Your task to perform on an android device: check data usage Image 0: 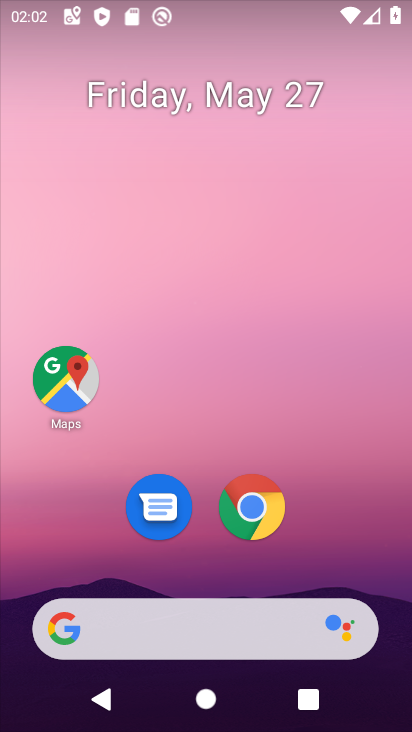
Step 0: drag from (230, 604) to (357, 203)
Your task to perform on an android device: check data usage Image 1: 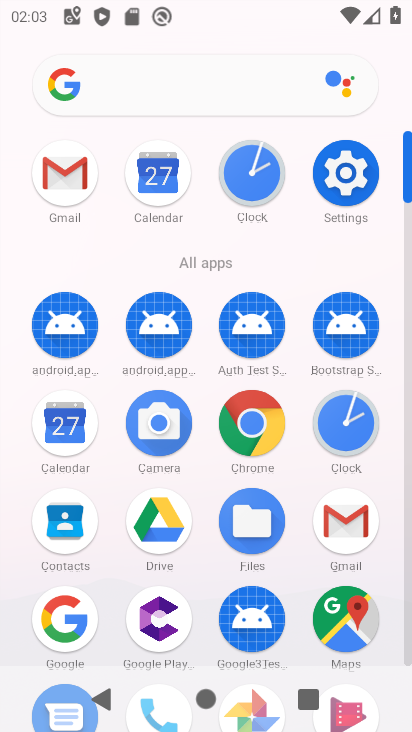
Step 1: click (344, 183)
Your task to perform on an android device: check data usage Image 2: 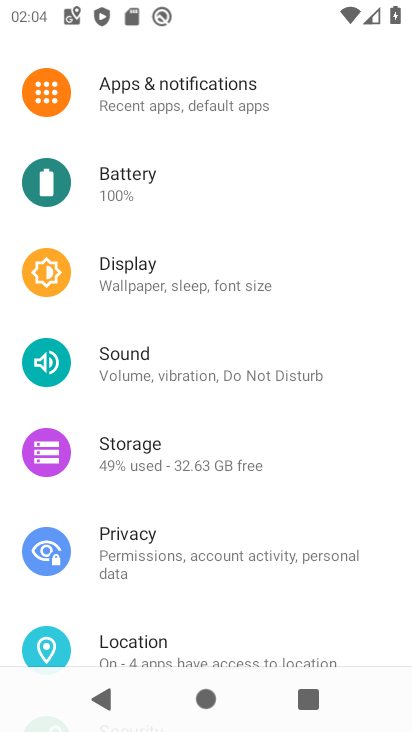
Step 2: drag from (157, 167) to (393, 716)
Your task to perform on an android device: check data usage Image 3: 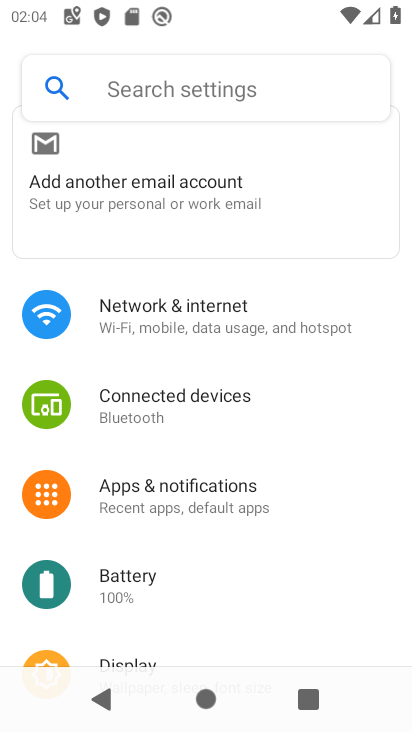
Step 3: click (150, 375)
Your task to perform on an android device: check data usage Image 4: 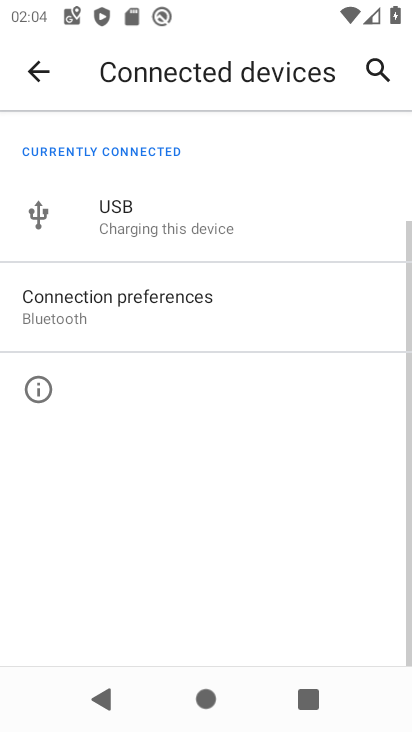
Step 4: click (25, 63)
Your task to perform on an android device: check data usage Image 5: 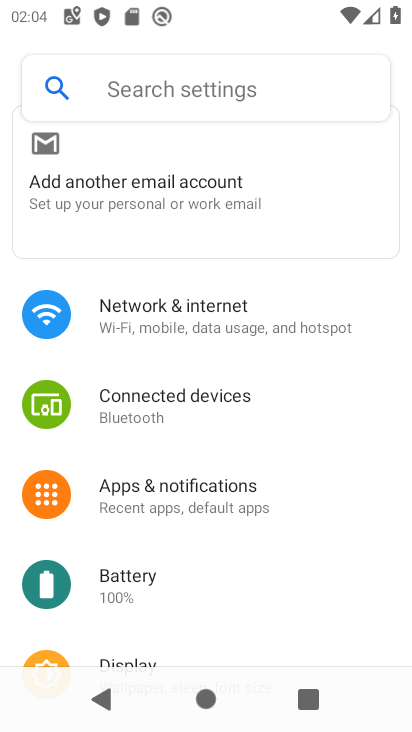
Step 5: click (152, 314)
Your task to perform on an android device: check data usage Image 6: 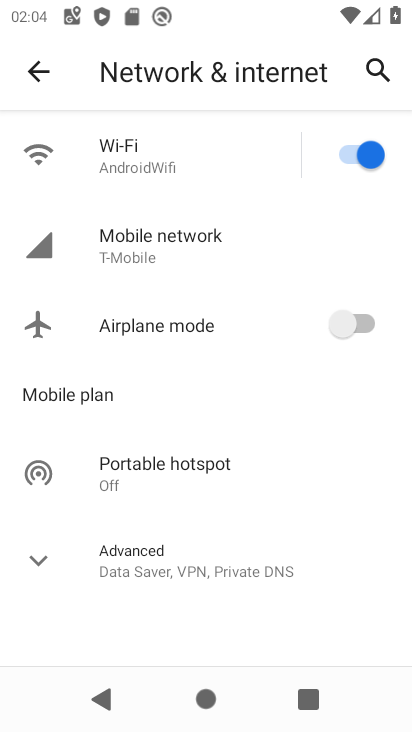
Step 6: click (144, 241)
Your task to perform on an android device: check data usage Image 7: 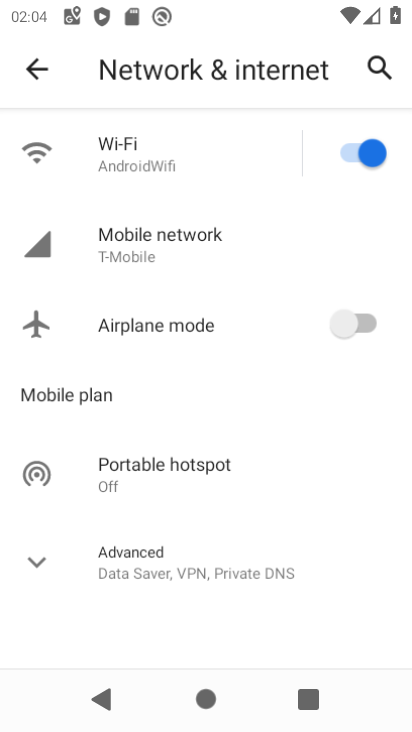
Step 7: task complete